Your task to perform on an android device: Go to Google maps Image 0: 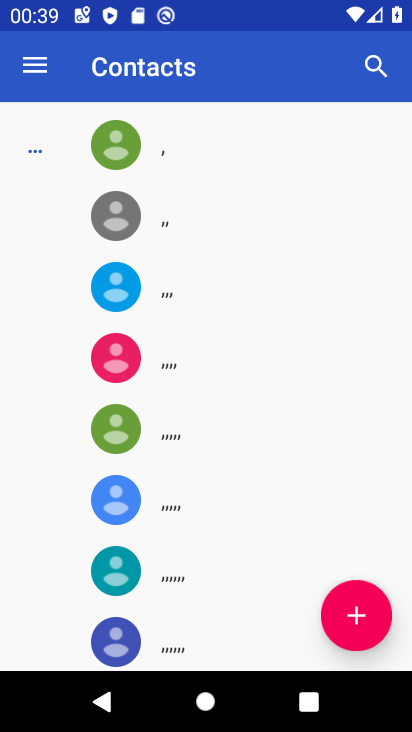
Step 0: press home button
Your task to perform on an android device: Go to Google maps Image 1: 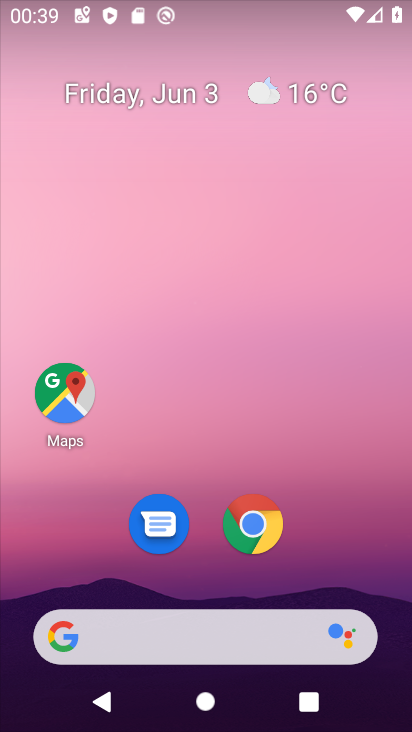
Step 1: click (63, 384)
Your task to perform on an android device: Go to Google maps Image 2: 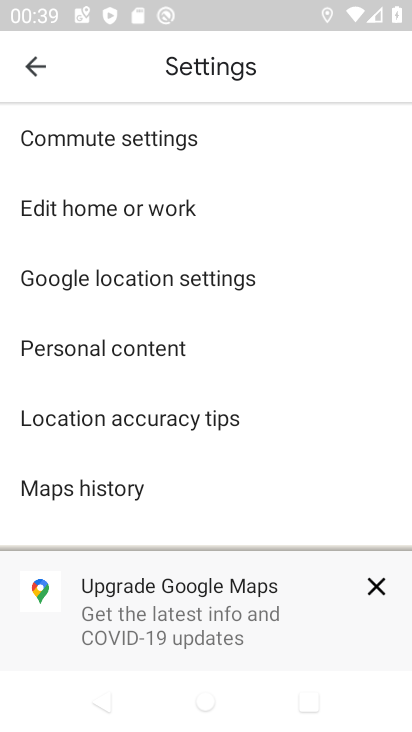
Step 2: press home button
Your task to perform on an android device: Go to Google maps Image 3: 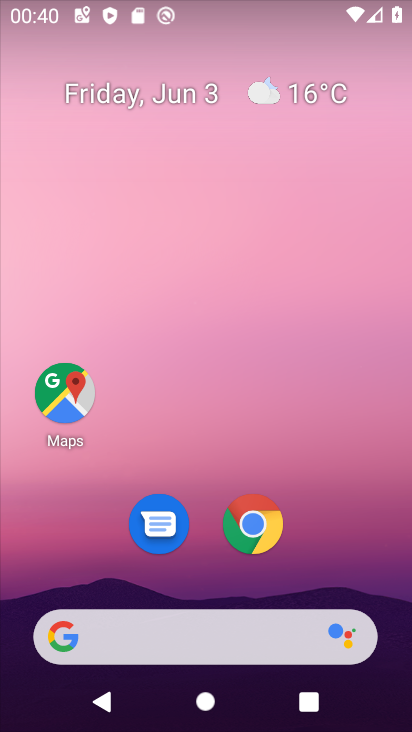
Step 3: click (65, 388)
Your task to perform on an android device: Go to Google maps Image 4: 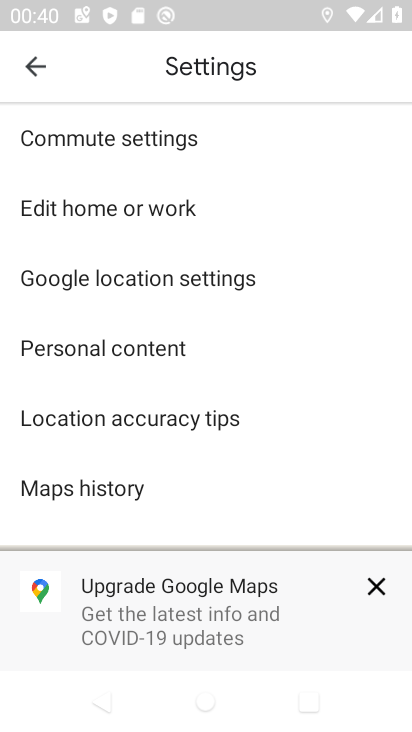
Step 4: click (38, 63)
Your task to perform on an android device: Go to Google maps Image 5: 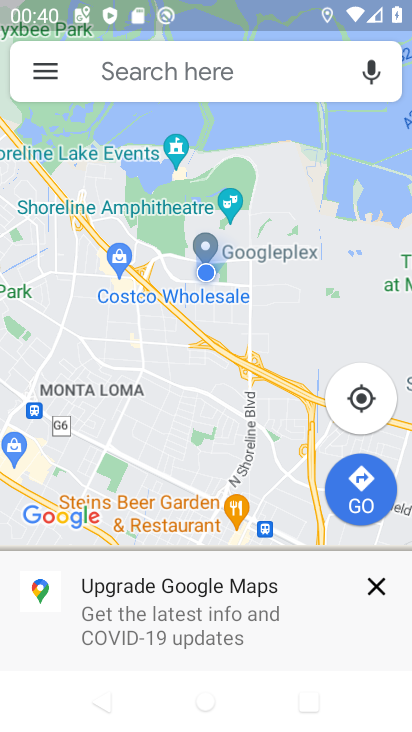
Step 5: task complete